Your task to perform on an android device: make emails show in primary in the gmail app Image 0: 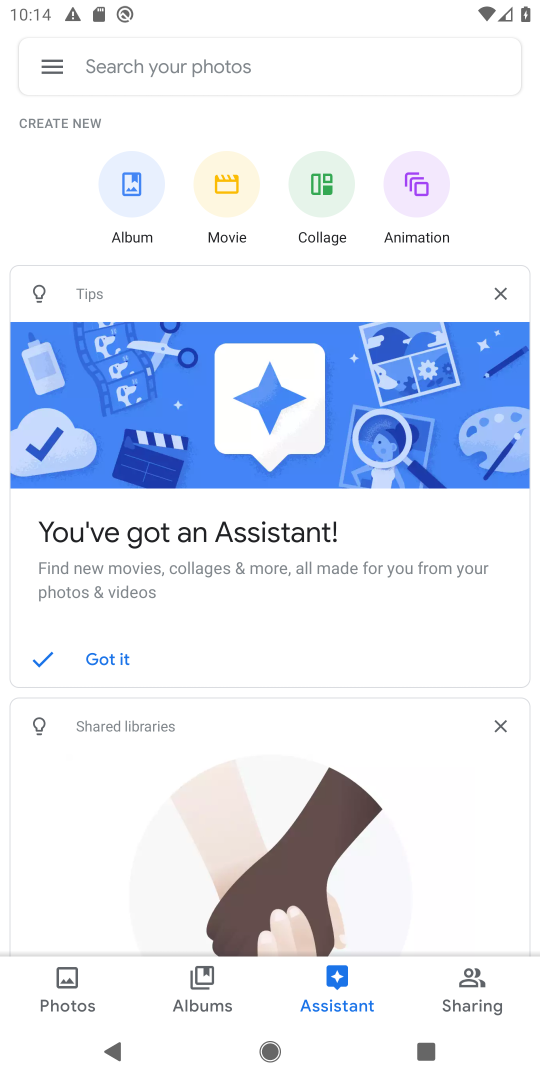
Step 0: press home button
Your task to perform on an android device: make emails show in primary in the gmail app Image 1: 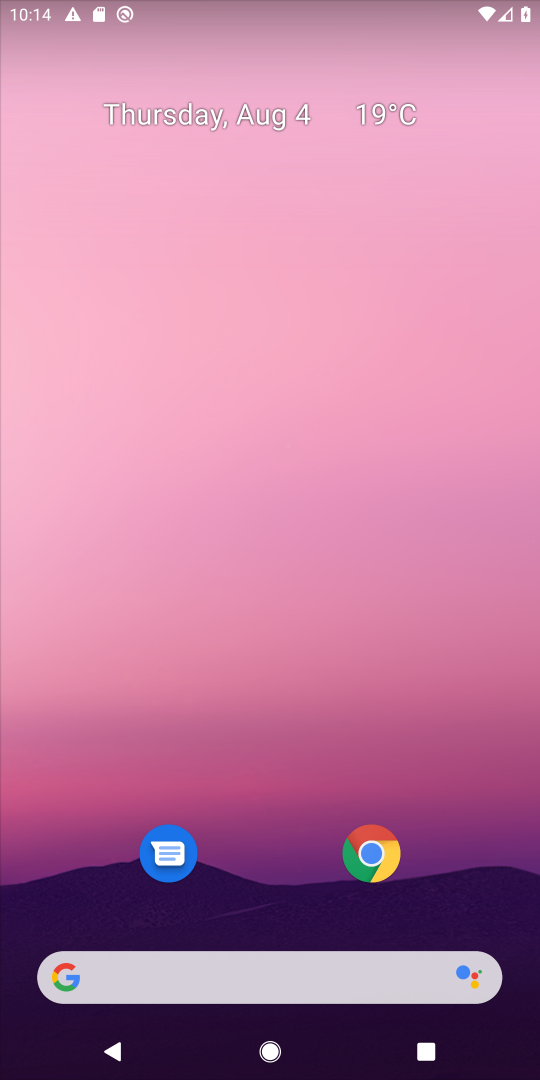
Step 1: drag from (243, 932) to (341, 7)
Your task to perform on an android device: make emails show in primary in the gmail app Image 2: 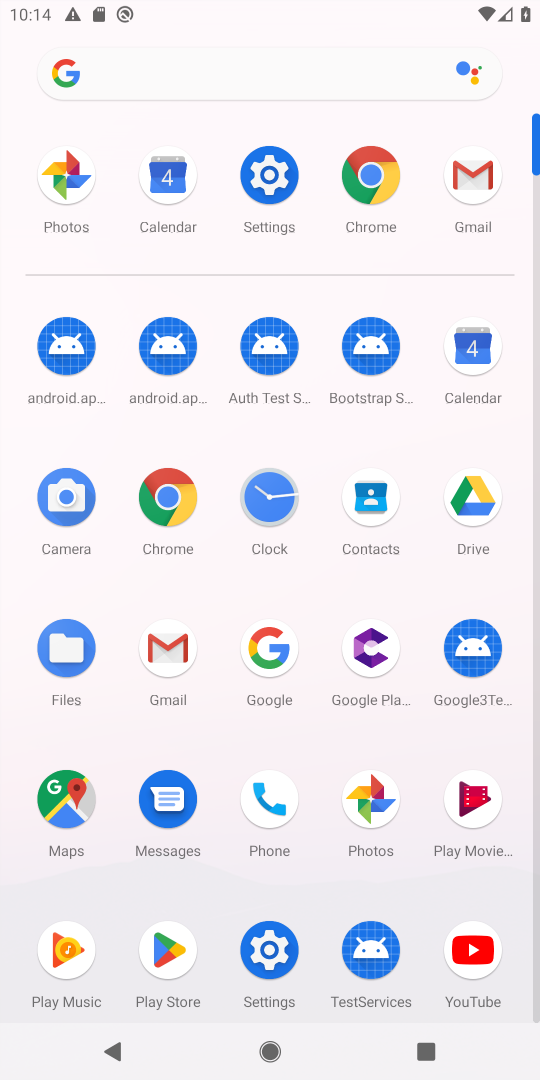
Step 2: click (179, 677)
Your task to perform on an android device: make emails show in primary in the gmail app Image 3: 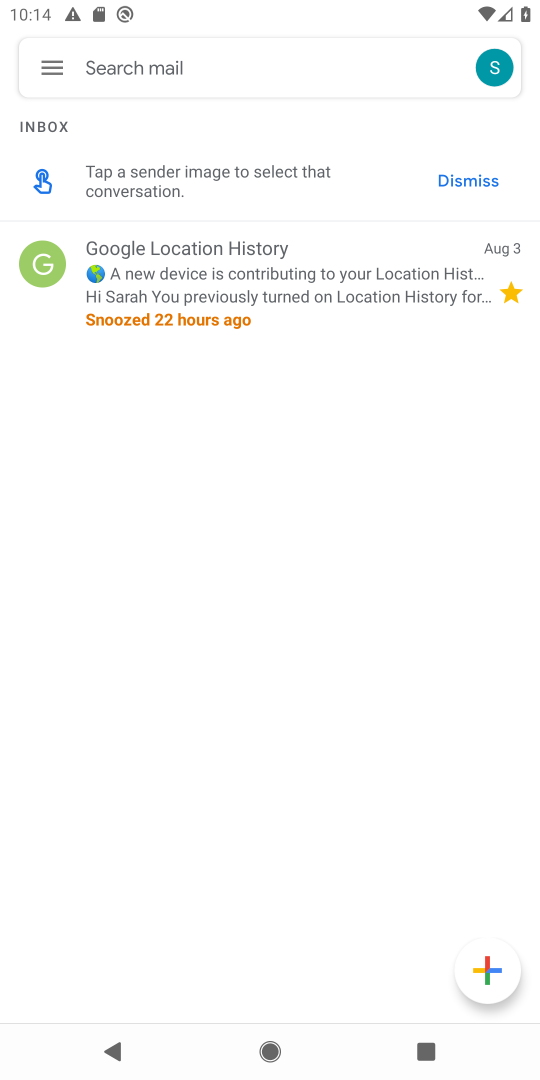
Step 3: click (47, 82)
Your task to perform on an android device: make emails show in primary in the gmail app Image 4: 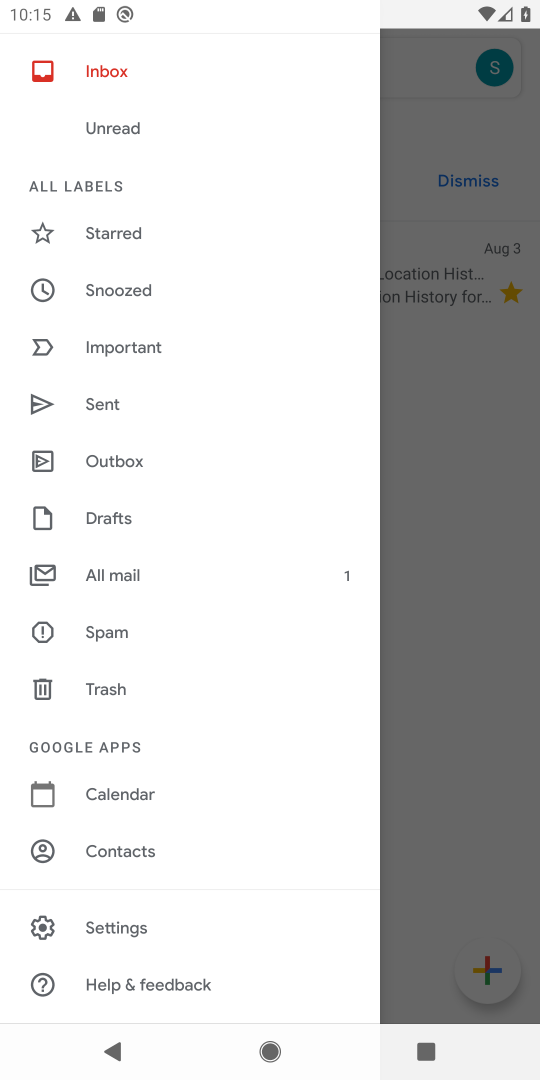
Step 4: click (129, 932)
Your task to perform on an android device: make emails show in primary in the gmail app Image 5: 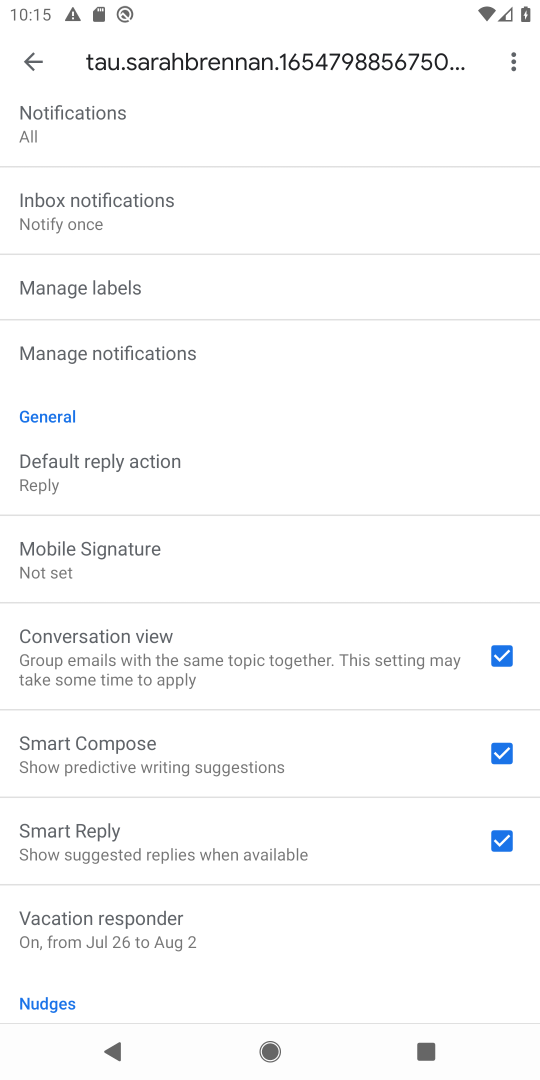
Step 5: drag from (127, 219) to (199, 953)
Your task to perform on an android device: make emails show in primary in the gmail app Image 6: 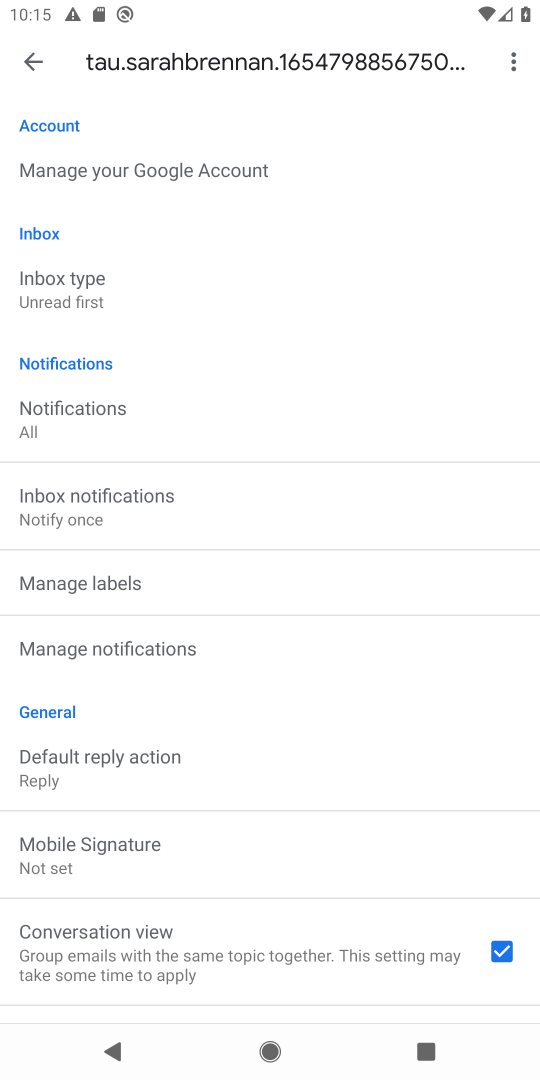
Step 6: click (76, 293)
Your task to perform on an android device: make emails show in primary in the gmail app Image 7: 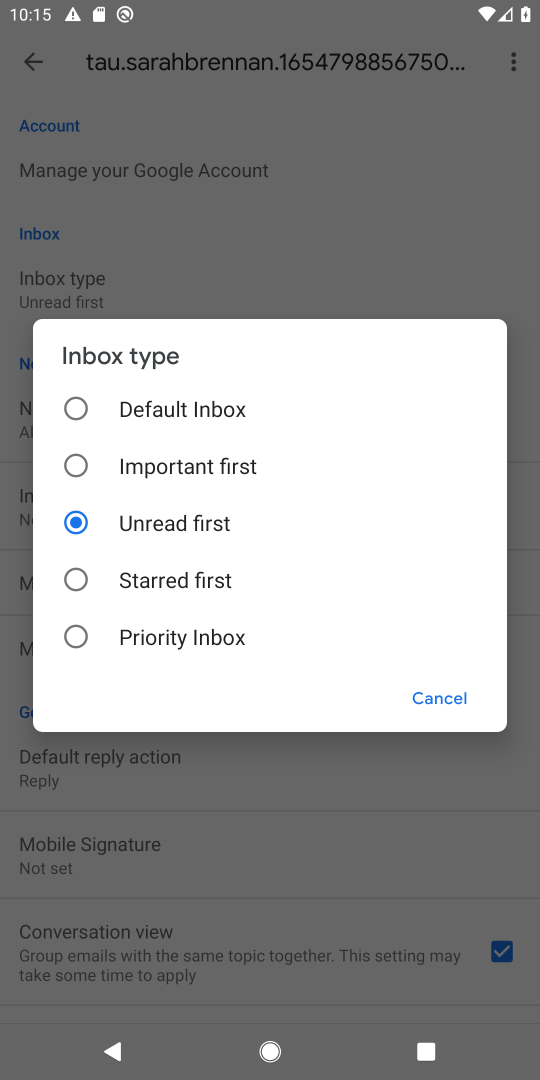
Step 7: click (184, 408)
Your task to perform on an android device: make emails show in primary in the gmail app Image 8: 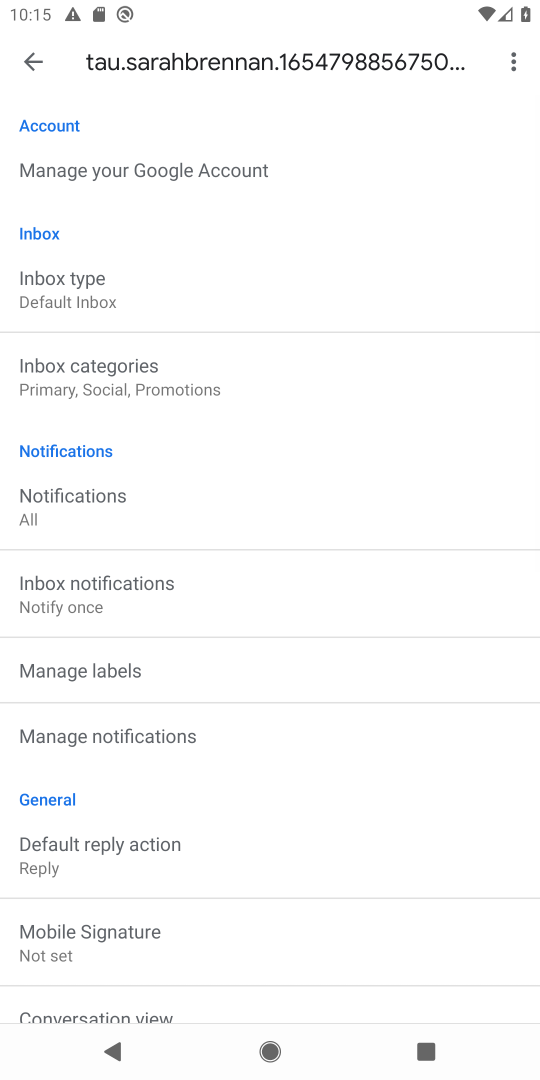
Step 8: click (181, 382)
Your task to perform on an android device: make emails show in primary in the gmail app Image 9: 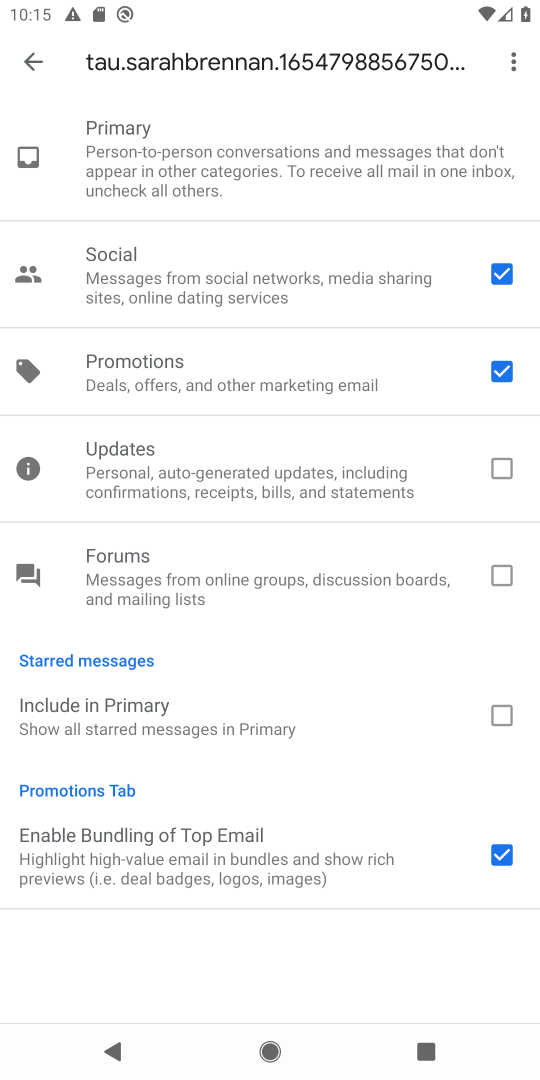
Step 9: click (498, 257)
Your task to perform on an android device: make emails show in primary in the gmail app Image 10: 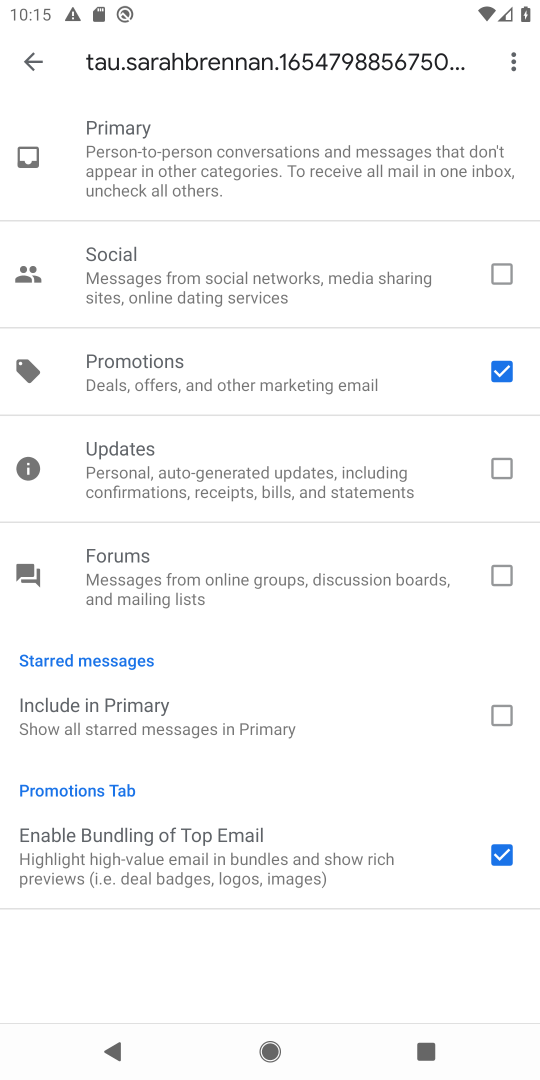
Step 10: click (483, 369)
Your task to perform on an android device: make emails show in primary in the gmail app Image 11: 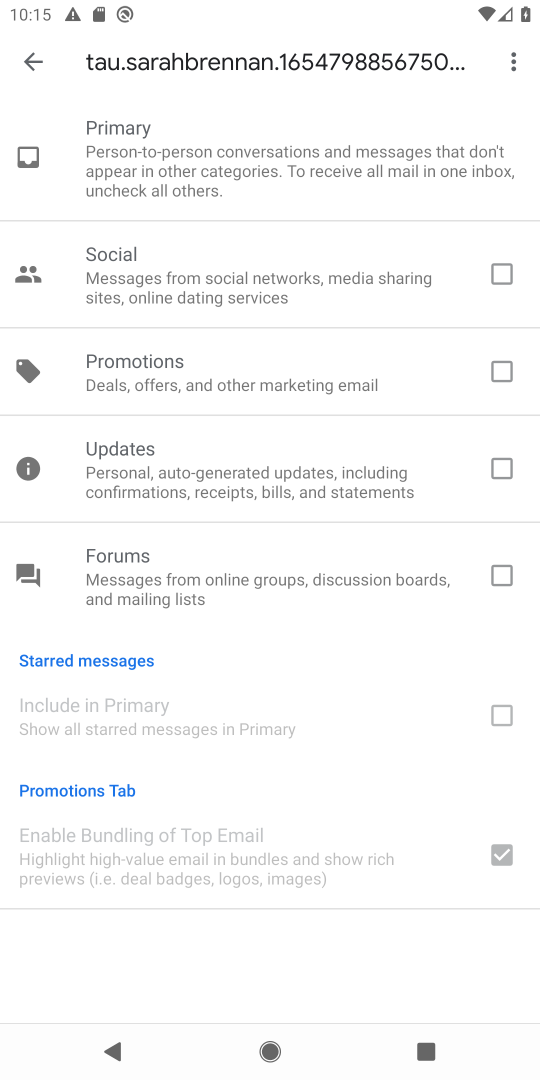
Step 11: task complete